Your task to perform on an android device: check the backup settings in the google photos Image 0: 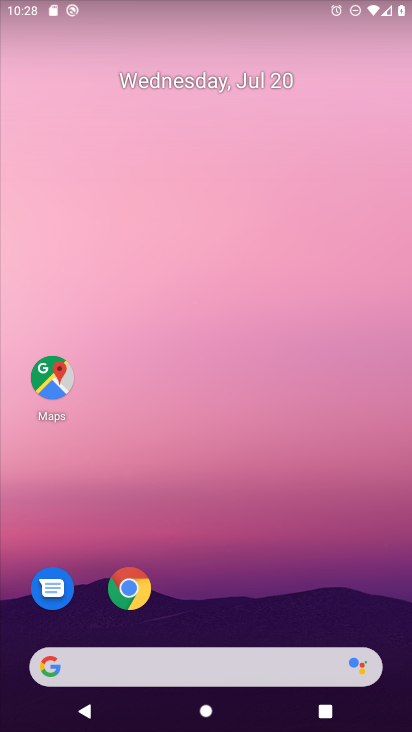
Step 0: drag from (217, 606) to (151, 22)
Your task to perform on an android device: check the backup settings in the google photos Image 1: 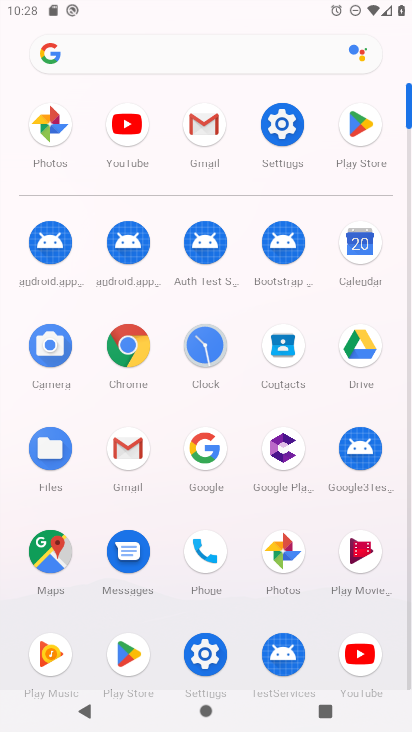
Step 1: click (42, 147)
Your task to perform on an android device: check the backup settings in the google photos Image 2: 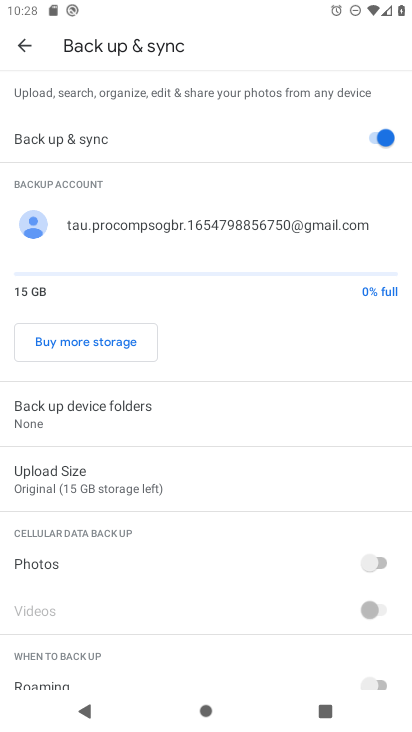
Step 2: click (125, 419)
Your task to perform on an android device: check the backup settings in the google photos Image 3: 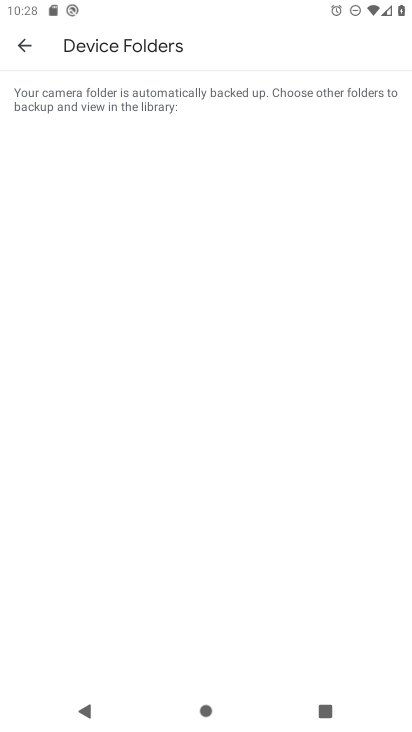
Step 3: task complete